Your task to perform on an android device: Go to Google Image 0: 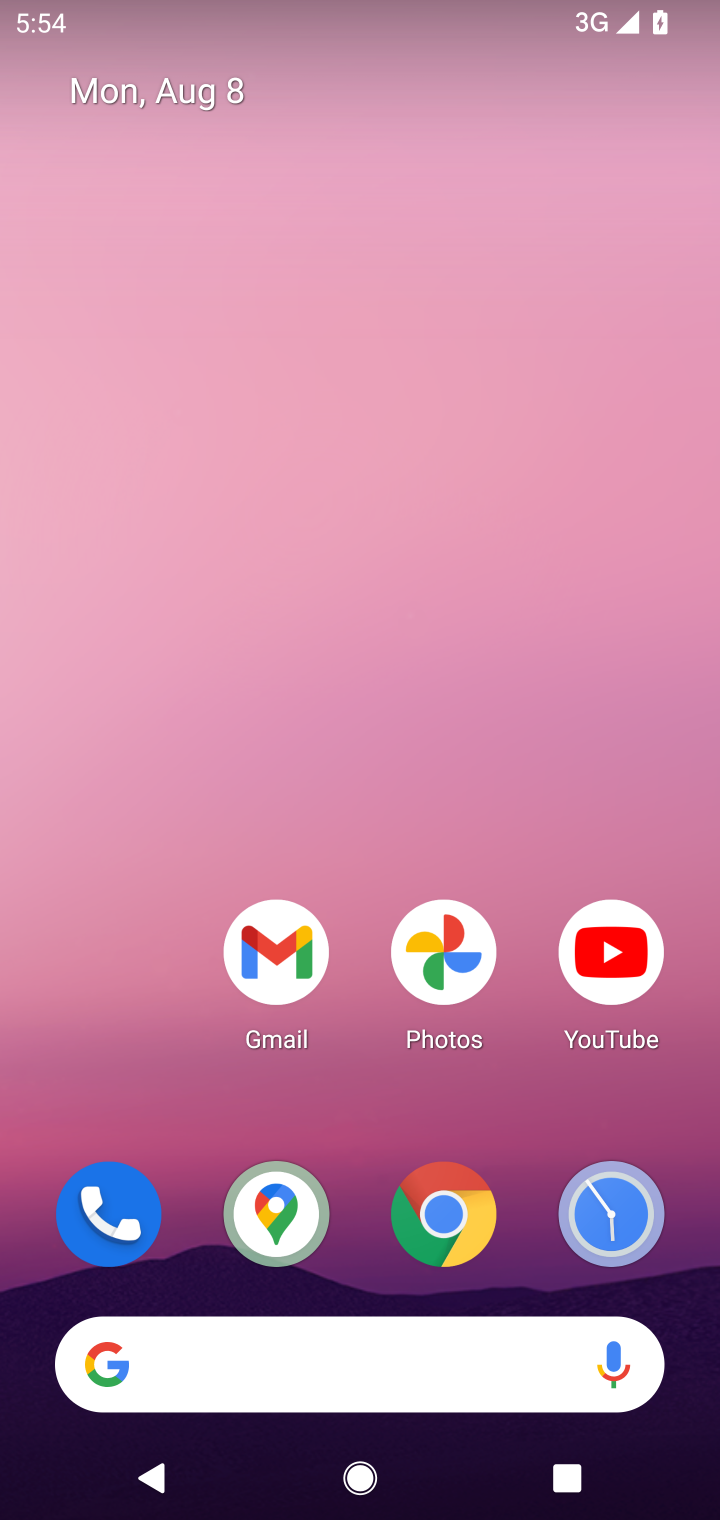
Step 0: drag from (354, 699) to (354, 320)
Your task to perform on an android device: Go to Google Image 1: 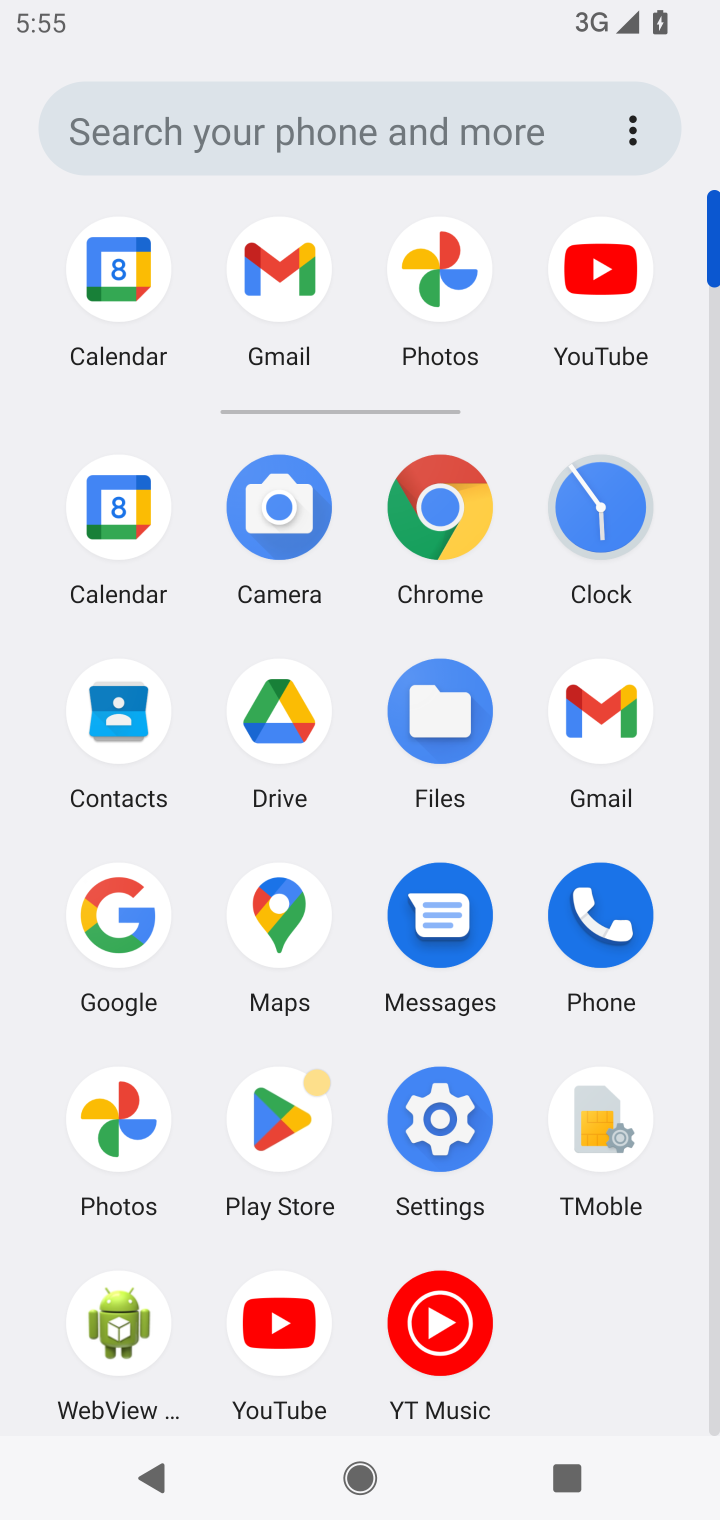
Step 1: click (119, 931)
Your task to perform on an android device: Go to Google Image 2: 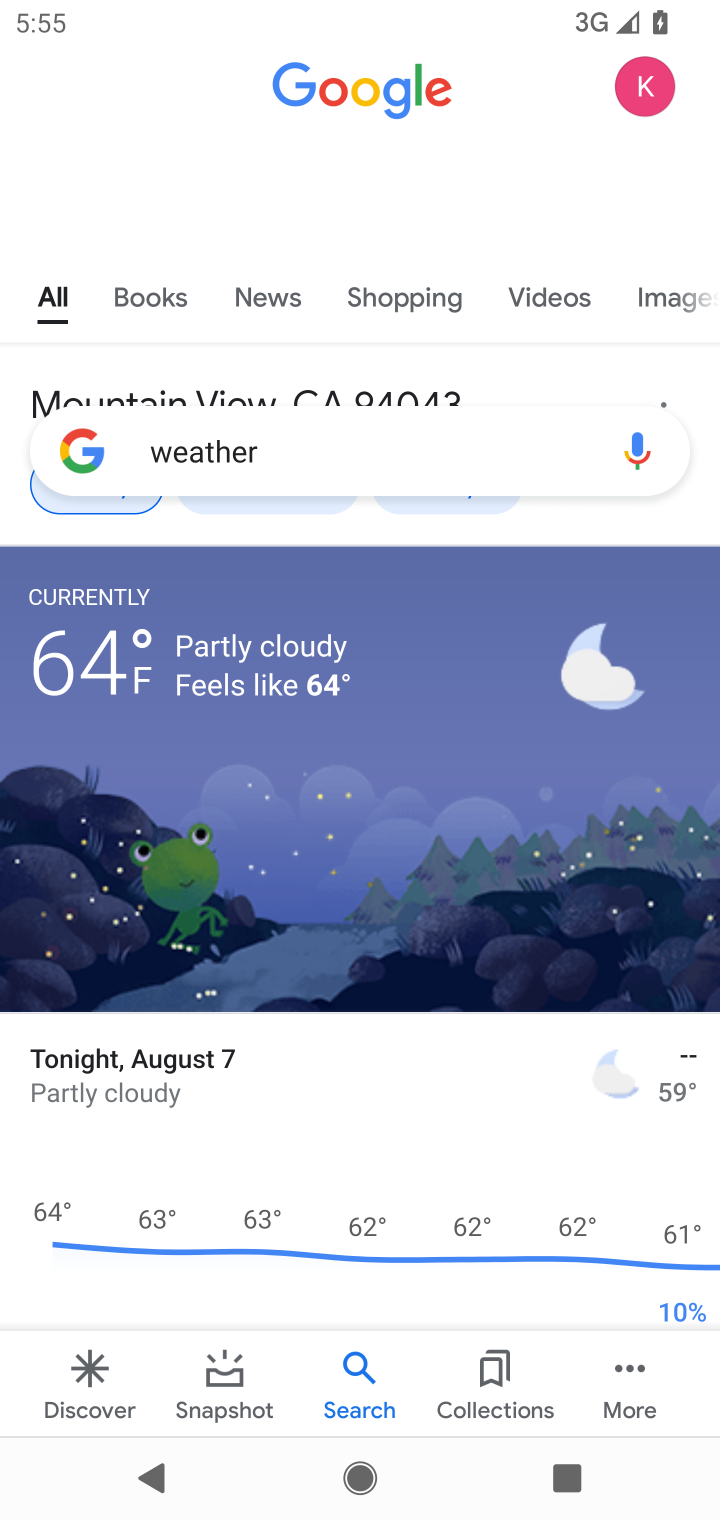
Step 2: task complete